Your task to perform on an android device: choose inbox layout in the gmail app Image 0: 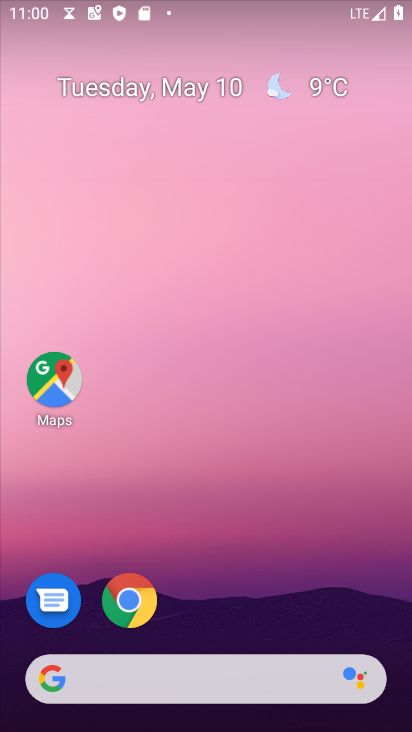
Step 0: drag from (288, 563) to (231, 110)
Your task to perform on an android device: choose inbox layout in the gmail app Image 1: 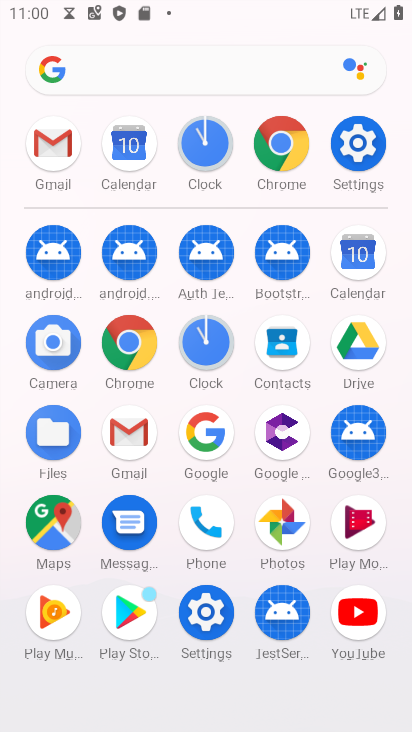
Step 1: click (134, 427)
Your task to perform on an android device: choose inbox layout in the gmail app Image 2: 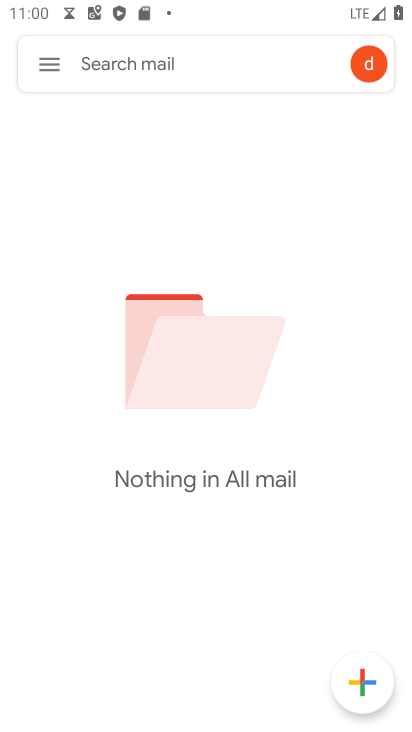
Step 2: click (52, 61)
Your task to perform on an android device: choose inbox layout in the gmail app Image 3: 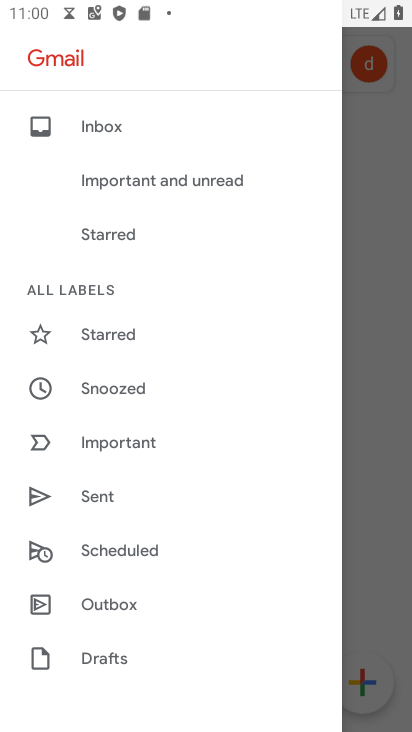
Step 3: drag from (198, 618) to (146, 137)
Your task to perform on an android device: choose inbox layout in the gmail app Image 4: 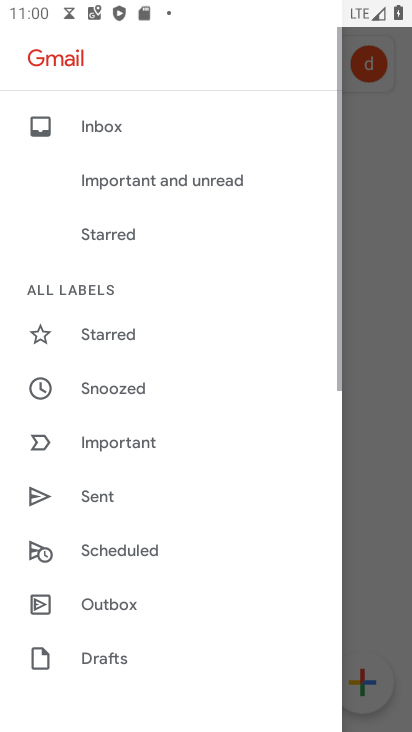
Step 4: drag from (109, 605) to (102, 187)
Your task to perform on an android device: choose inbox layout in the gmail app Image 5: 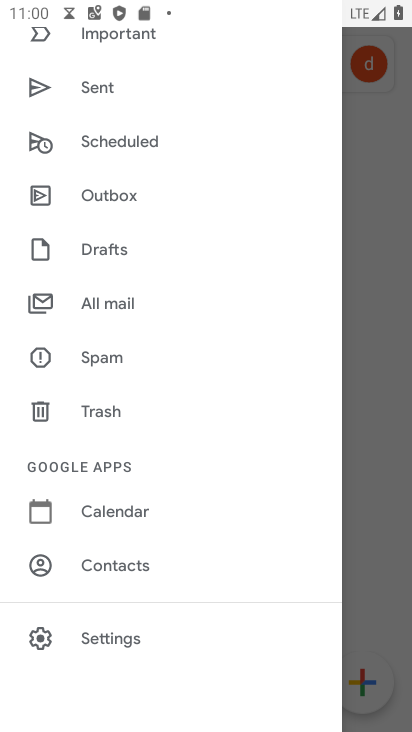
Step 5: click (125, 640)
Your task to perform on an android device: choose inbox layout in the gmail app Image 6: 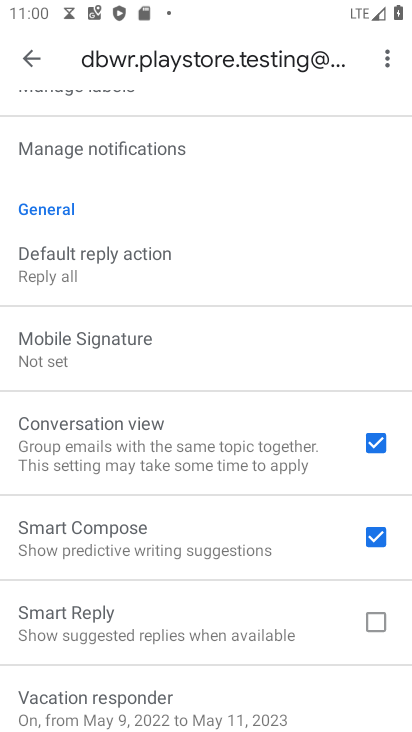
Step 6: drag from (191, 641) to (188, 681)
Your task to perform on an android device: choose inbox layout in the gmail app Image 7: 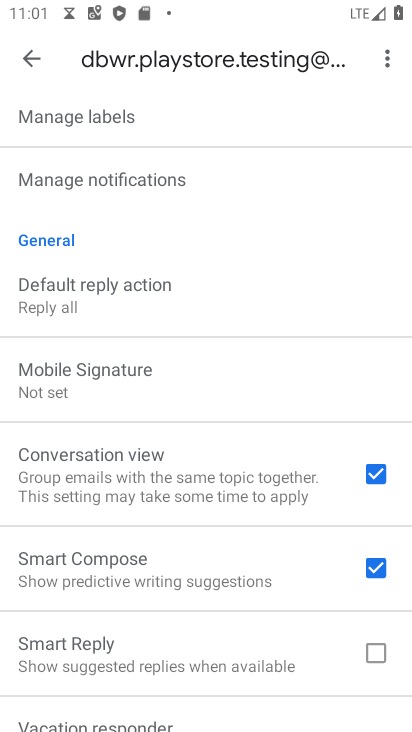
Step 7: drag from (152, 229) to (194, 614)
Your task to perform on an android device: choose inbox layout in the gmail app Image 8: 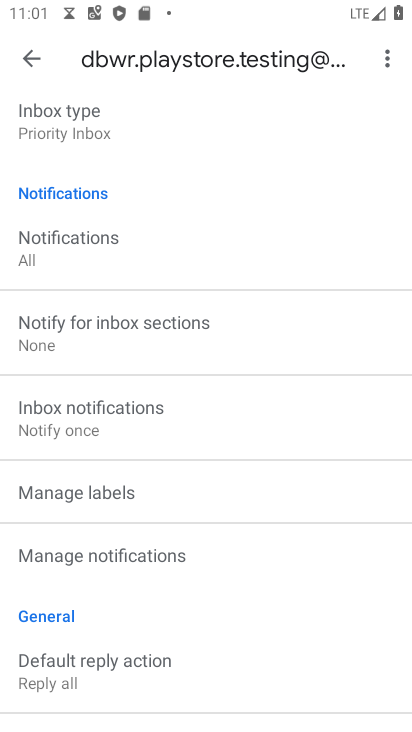
Step 8: click (190, 120)
Your task to perform on an android device: choose inbox layout in the gmail app Image 9: 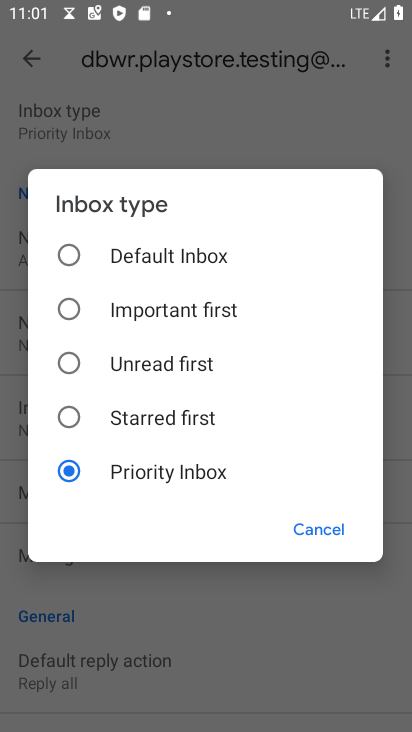
Step 9: click (189, 255)
Your task to perform on an android device: choose inbox layout in the gmail app Image 10: 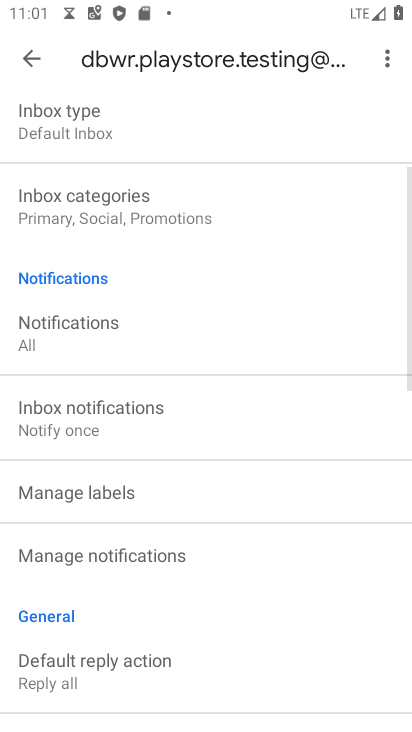
Step 10: task complete